Your task to perform on an android device: What is the news today? Image 0: 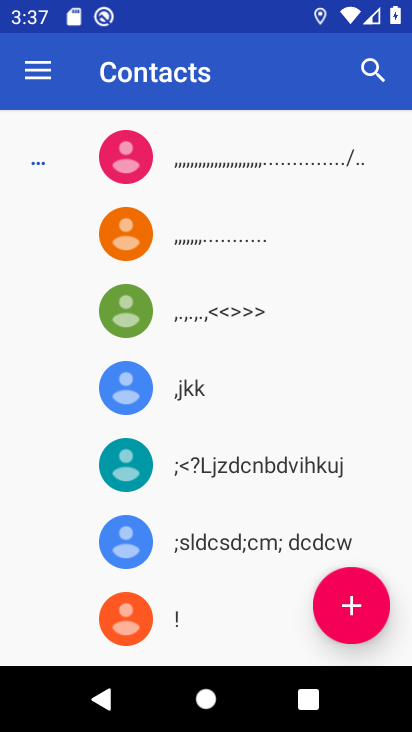
Step 0: press home button
Your task to perform on an android device: What is the news today? Image 1: 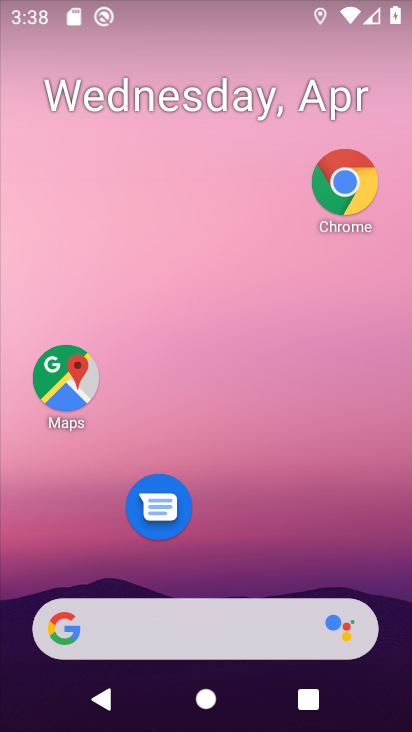
Step 1: click (218, 623)
Your task to perform on an android device: What is the news today? Image 2: 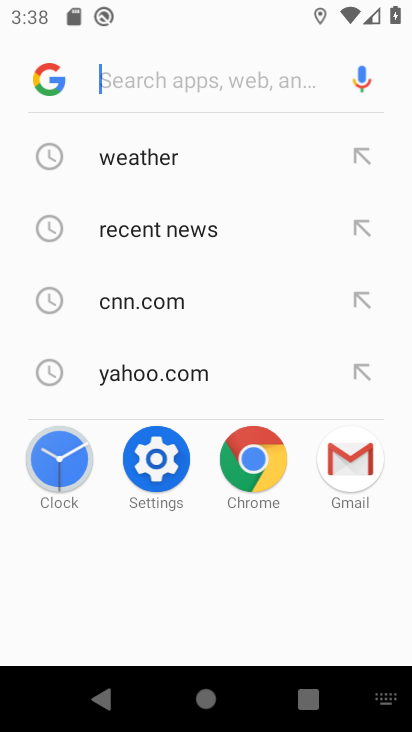
Step 2: type ""
Your task to perform on an android device: What is the news today? Image 3: 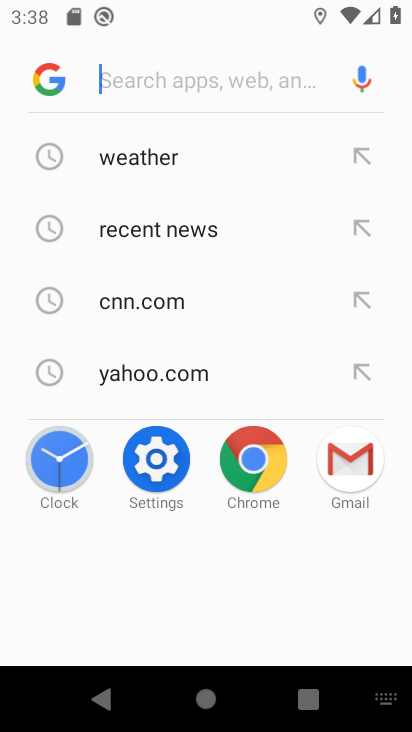
Step 3: type "news today"
Your task to perform on an android device: What is the news today? Image 4: 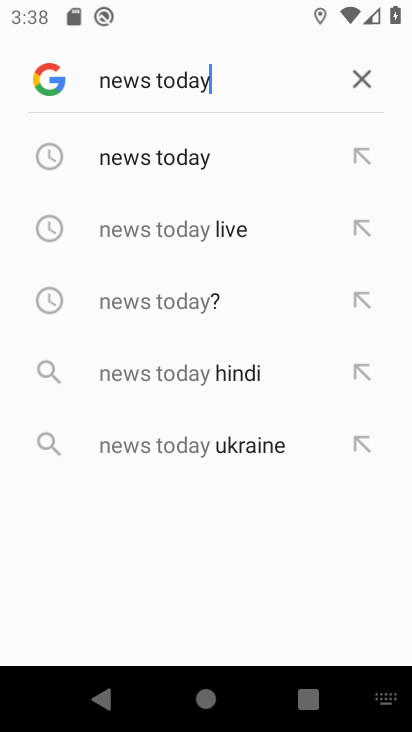
Step 4: click (199, 150)
Your task to perform on an android device: What is the news today? Image 5: 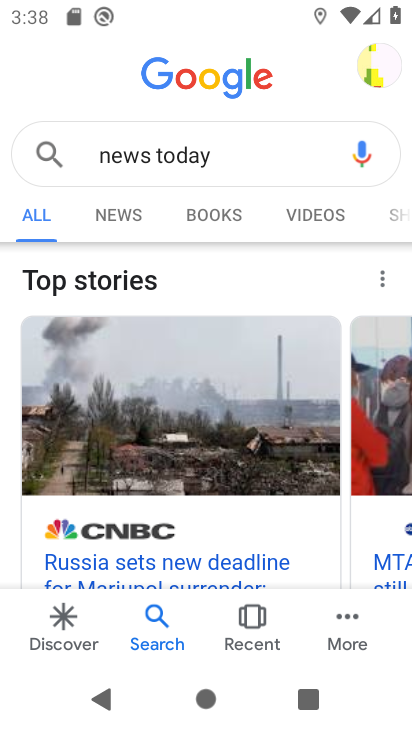
Step 5: task complete